Your task to perform on an android device: turn off sleep mode Image 0: 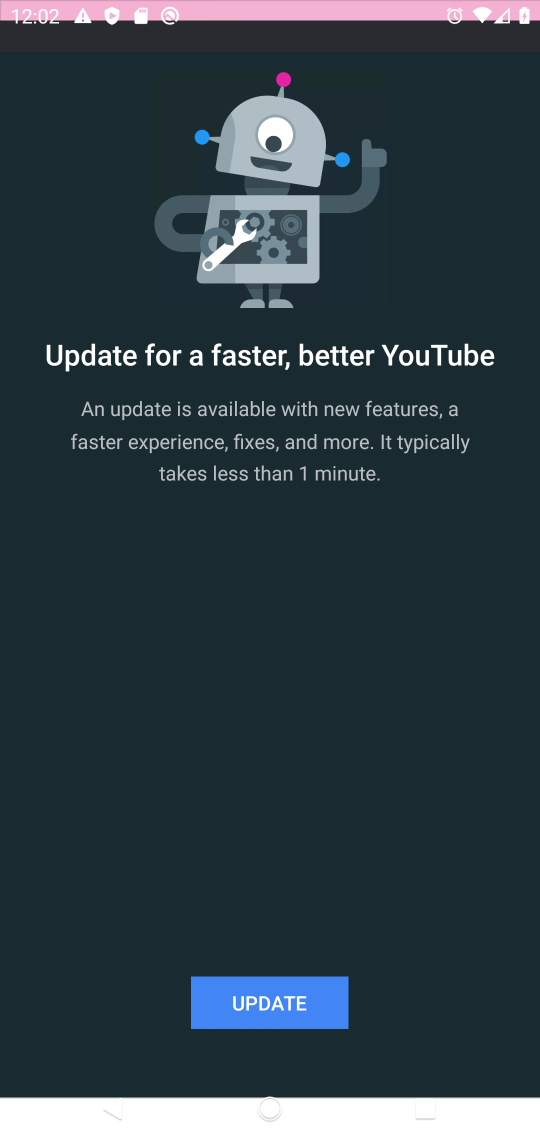
Step 0: click (262, 826)
Your task to perform on an android device: turn off sleep mode Image 1: 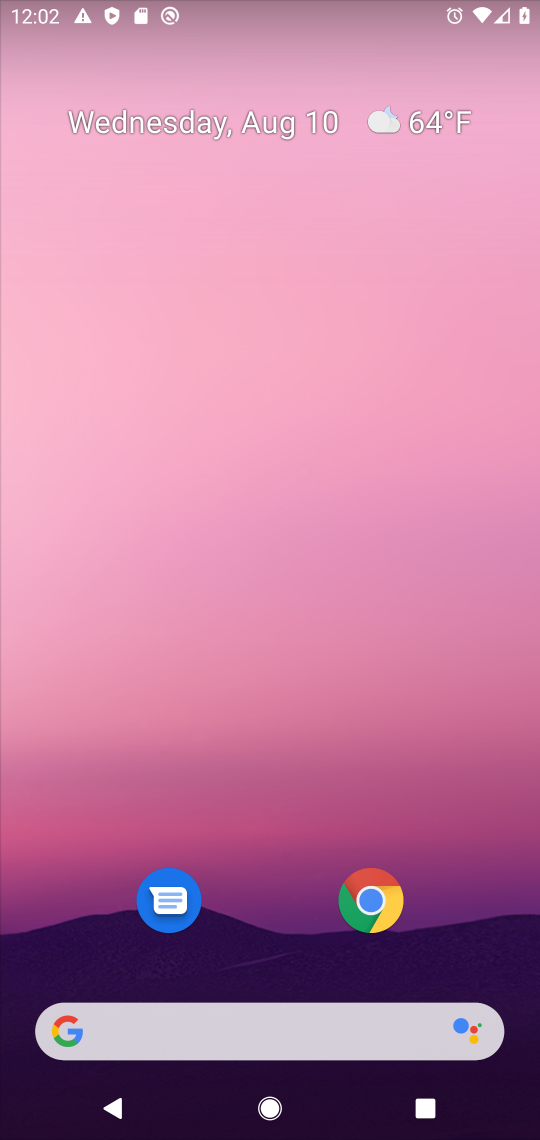
Step 1: press home button
Your task to perform on an android device: turn off sleep mode Image 2: 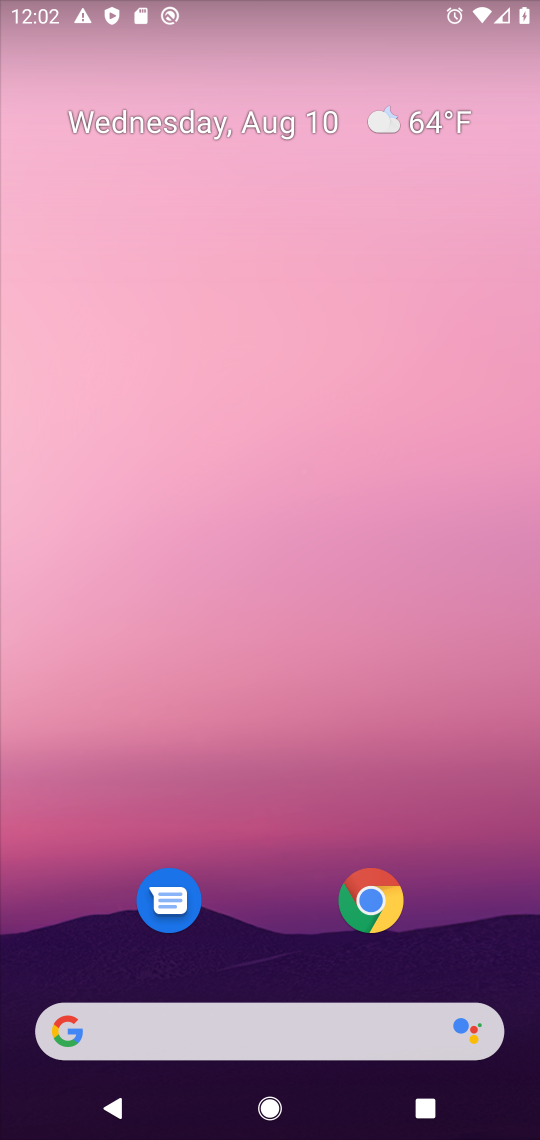
Step 2: drag from (268, 896) to (367, 17)
Your task to perform on an android device: turn off sleep mode Image 3: 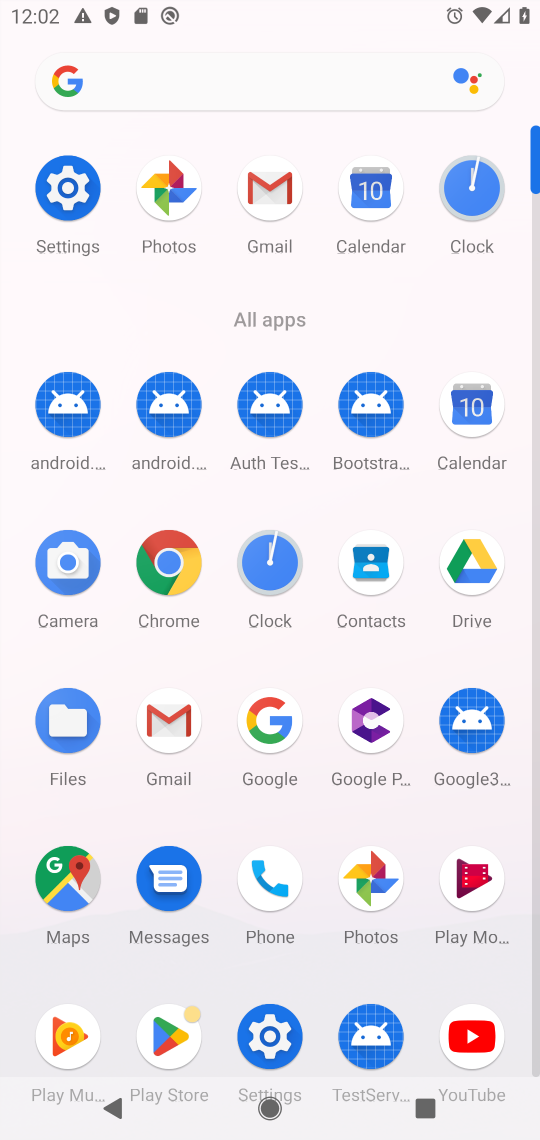
Step 3: click (72, 189)
Your task to perform on an android device: turn off sleep mode Image 4: 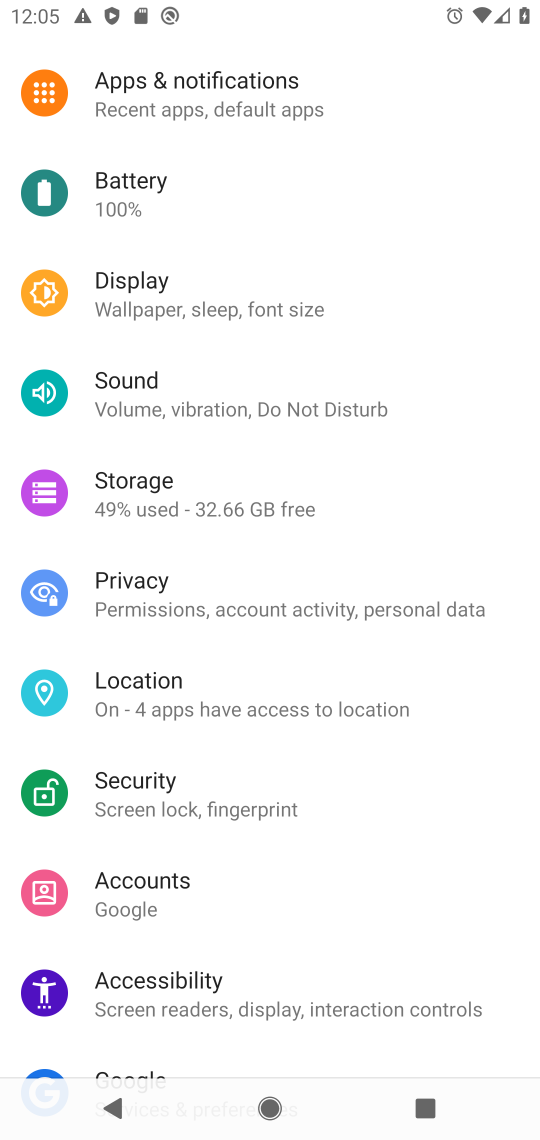
Step 4: task complete